Your task to perform on an android device: Open calendar and show me the second week of next month Image 0: 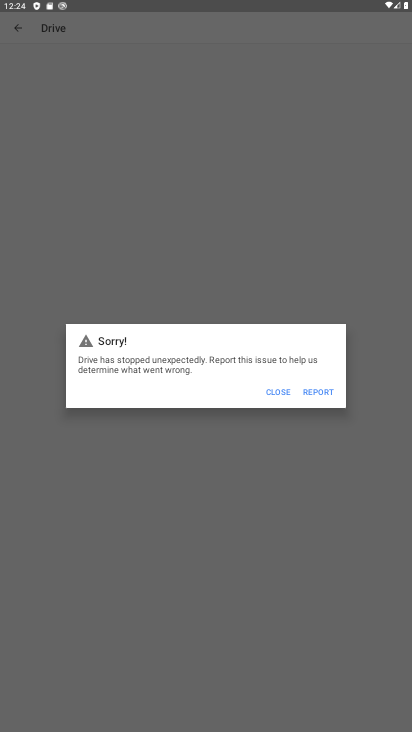
Step 0: press home button
Your task to perform on an android device: Open calendar and show me the second week of next month Image 1: 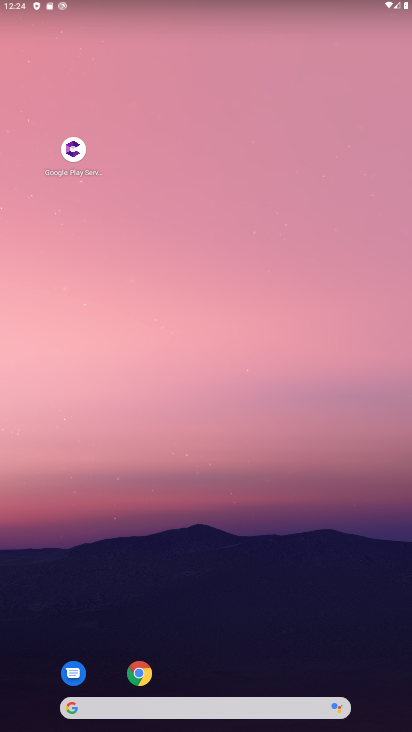
Step 1: drag from (259, 599) to (296, 0)
Your task to perform on an android device: Open calendar and show me the second week of next month Image 2: 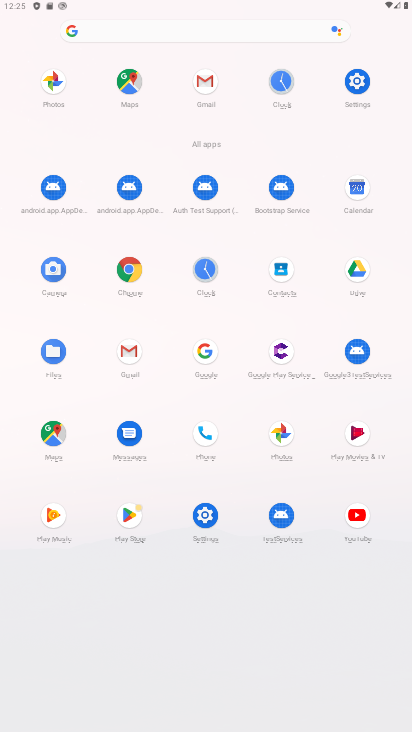
Step 2: click (364, 183)
Your task to perform on an android device: Open calendar and show me the second week of next month Image 3: 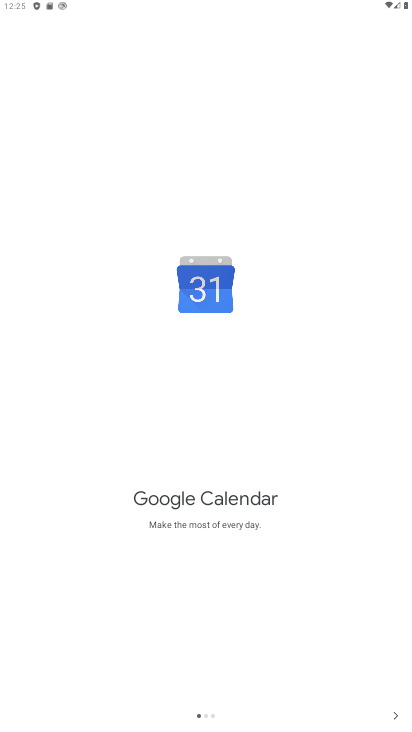
Step 3: click (397, 715)
Your task to perform on an android device: Open calendar and show me the second week of next month Image 4: 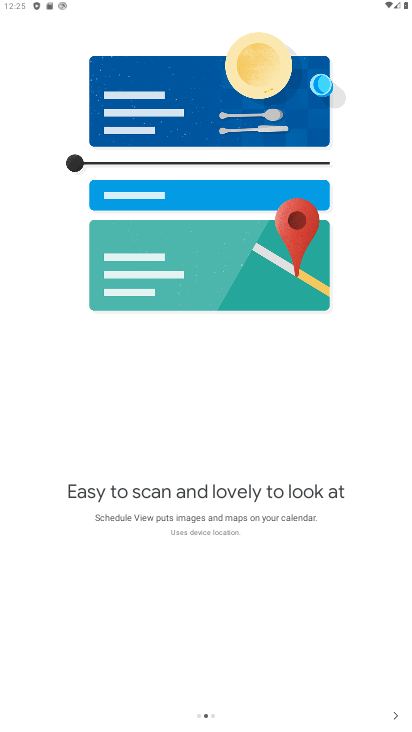
Step 4: click (397, 715)
Your task to perform on an android device: Open calendar and show me the second week of next month Image 5: 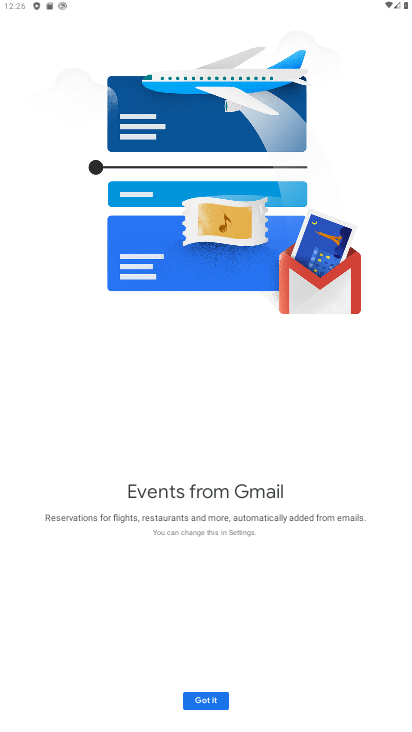
Step 5: click (196, 705)
Your task to perform on an android device: Open calendar and show me the second week of next month Image 6: 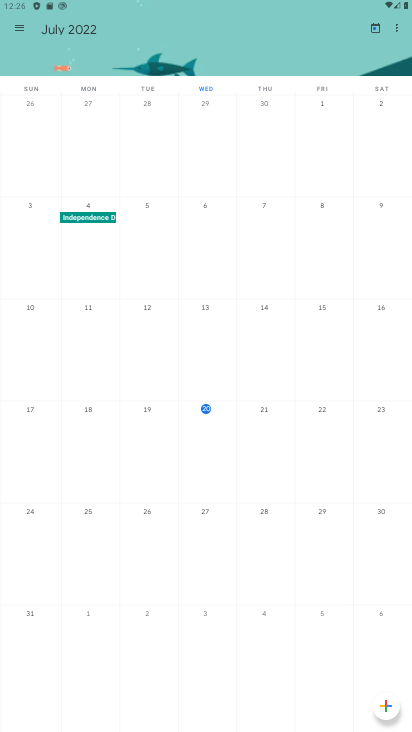
Step 6: press home button
Your task to perform on an android device: Open calendar and show me the second week of next month Image 7: 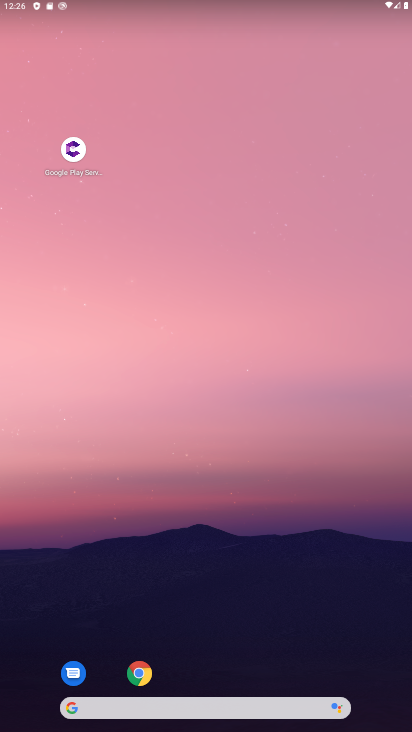
Step 7: drag from (311, 546) to (250, 97)
Your task to perform on an android device: Open calendar and show me the second week of next month Image 8: 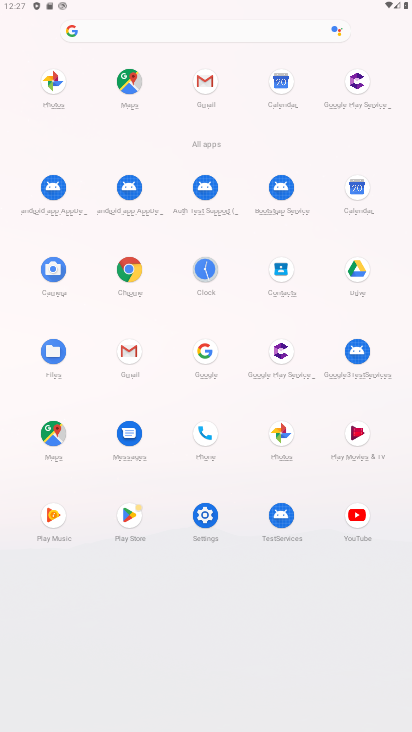
Step 8: click (360, 188)
Your task to perform on an android device: Open calendar and show me the second week of next month Image 9: 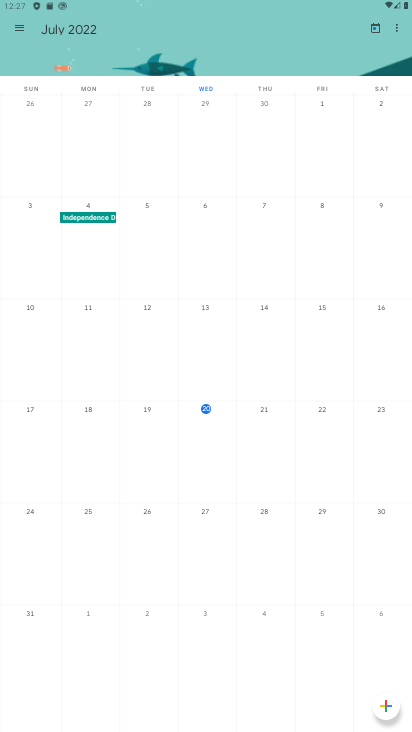
Step 9: click (26, 30)
Your task to perform on an android device: Open calendar and show me the second week of next month Image 10: 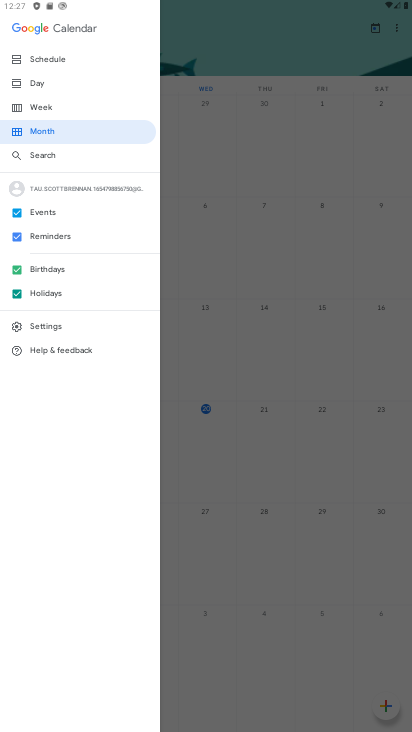
Step 10: click (51, 102)
Your task to perform on an android device: Open calendar and show me the second week of next month Image 11: 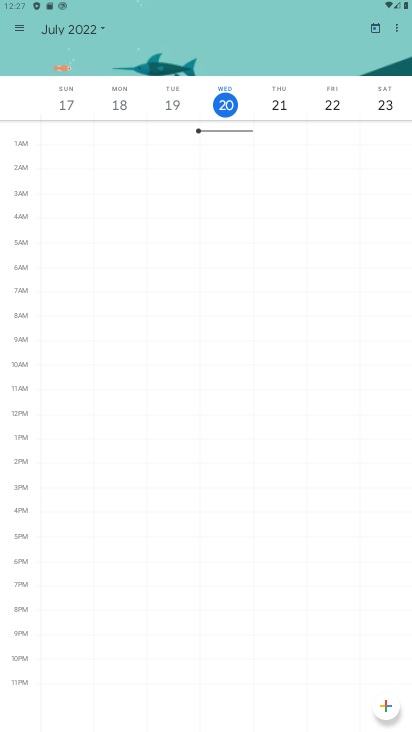
Step 11: click (100, 26)
Your task to perform on an android device: Open calendar and show me the second week of next month Image 12: 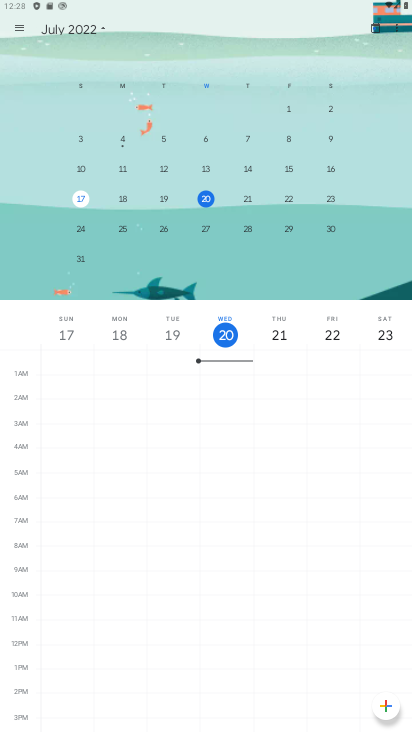
Step 12: drag from (362, 194) to (27, 181)
Your task to perform on an android device: Open calendar and show me the second week of next month Image 13: 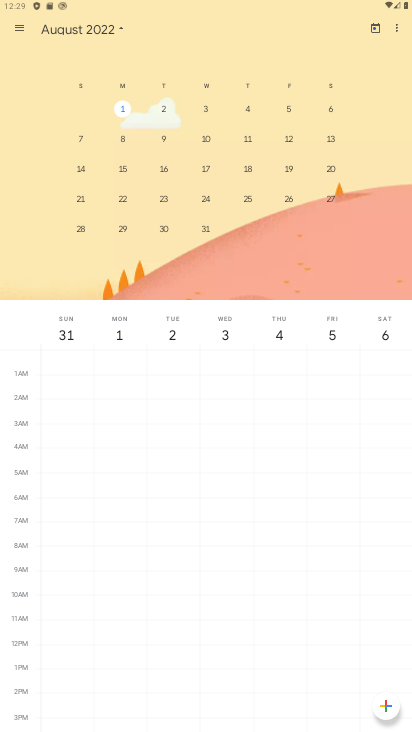
Step 13: click (165, 134)
Your task to perform on an android device: Open calendar and show me the second week of next month Image 14: 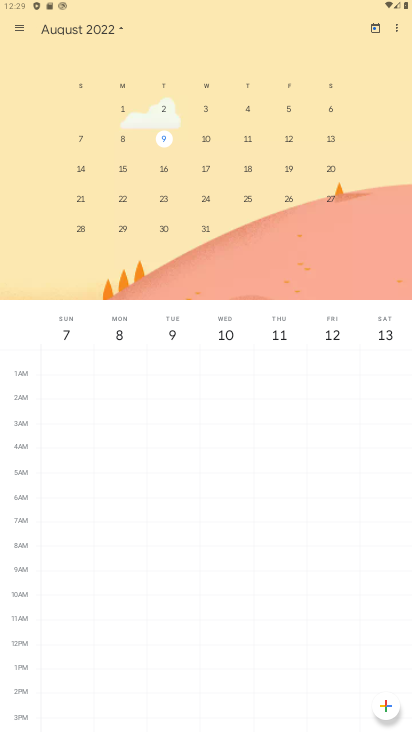
Step 14: task complete